Your task to perform on an android device: Search for Mexican restaurants on Maps Image 0: 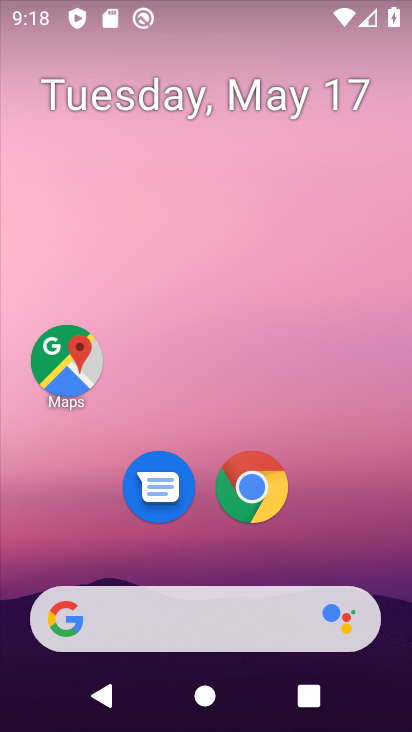
Step 0: drag from (289, 373) to (324, 252)
Your task to perform on an android device: Search for Mexican restaurants on Maps Image 1: 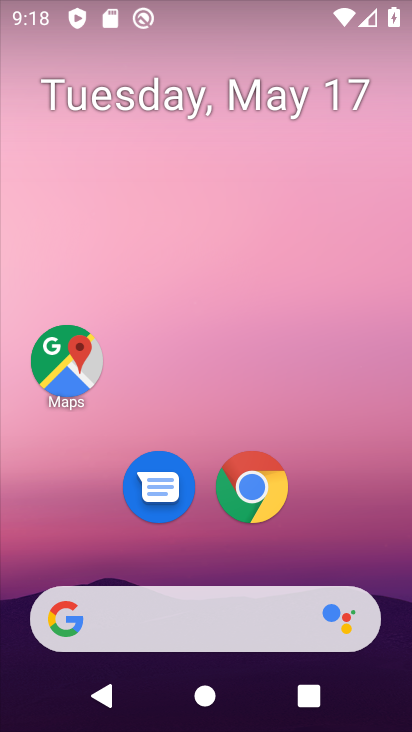
Step 1: drag from (187, 661) to (378, 198)
Your task to perform on an android device: Search for Mexican restaurants on Maps Image 2: 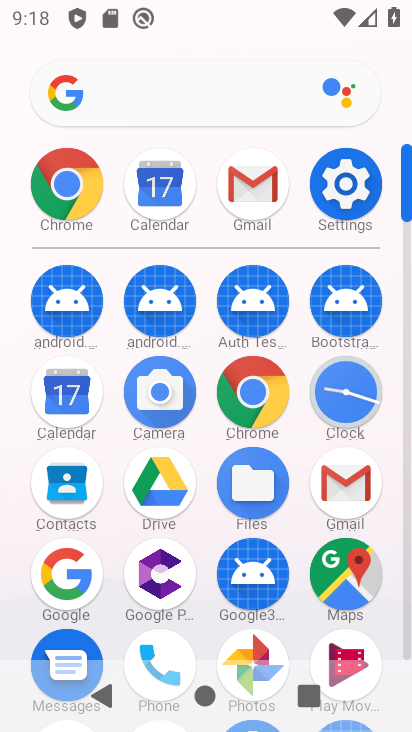
Step 2: click (328, 574)
Your task to perform on an android device: Search for Mexican restaurants on Maps Image 3: 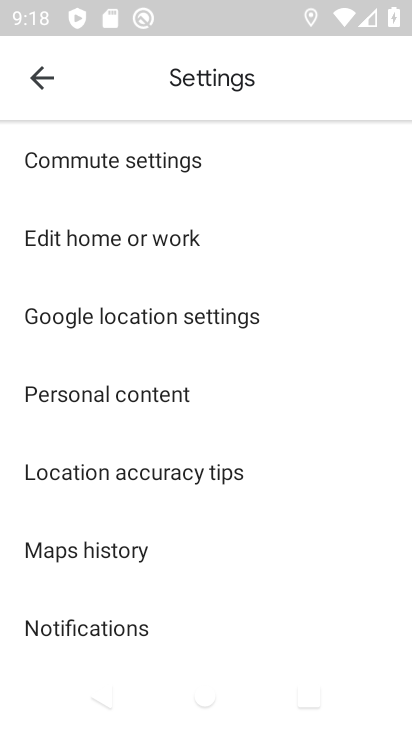
Step 3: click (46, 81)
Your task to perform on an android device: Search for Mexican restaurants on Maps Image 4: 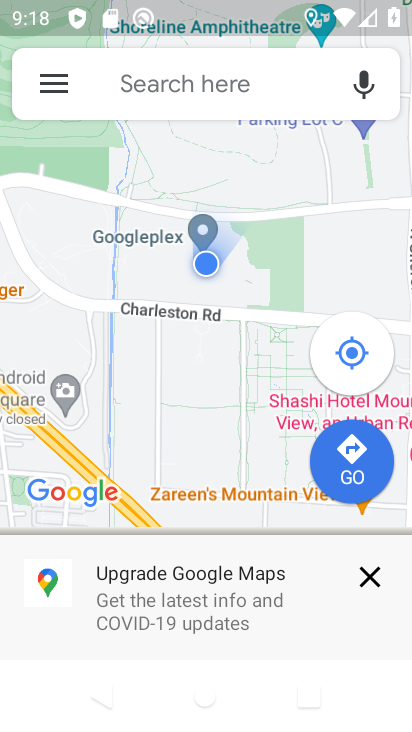
Step 4: click (136, 89)
Your task to perform on an android device: Search for Mexican restaurants on Maps Image 5: 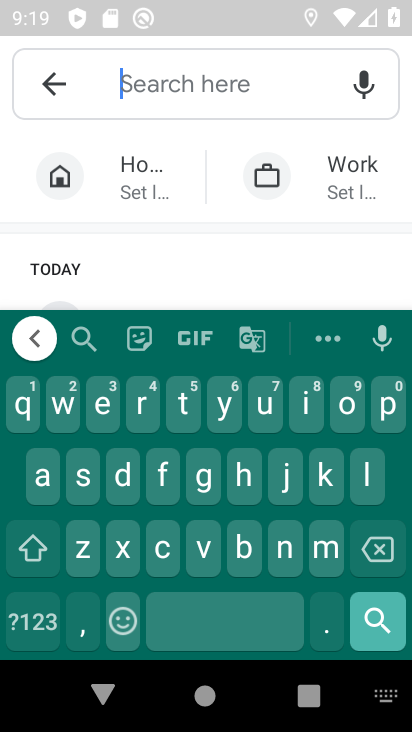
Step 5: click (328, 553)
Your task to perform on an android device: Search for Mexican restaurants on Maps Image 6: 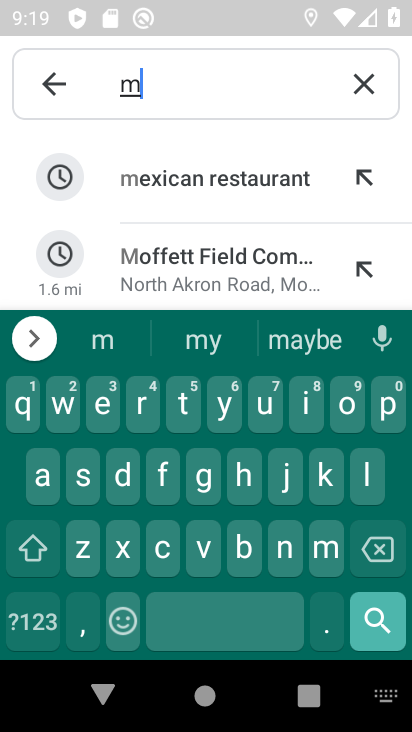
Step 6: click (195, 192)
Your task to perform on an android device: Search for Mexican restaurants on Maps Image 7: 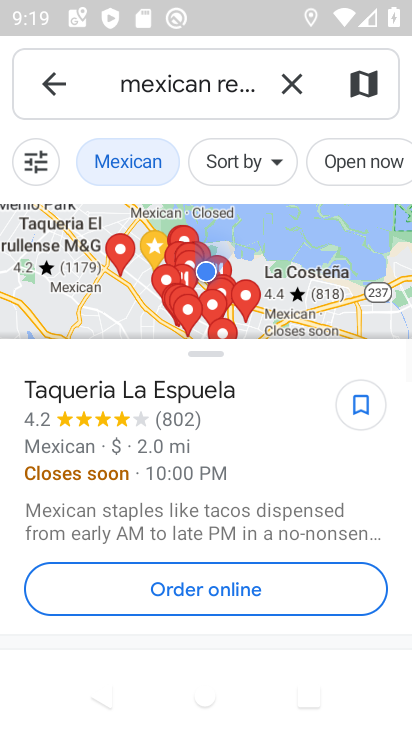
Step 7: click (175, 246)
Your task to perform on an android device: Search for Mexican restaurants on Maps Image 8: 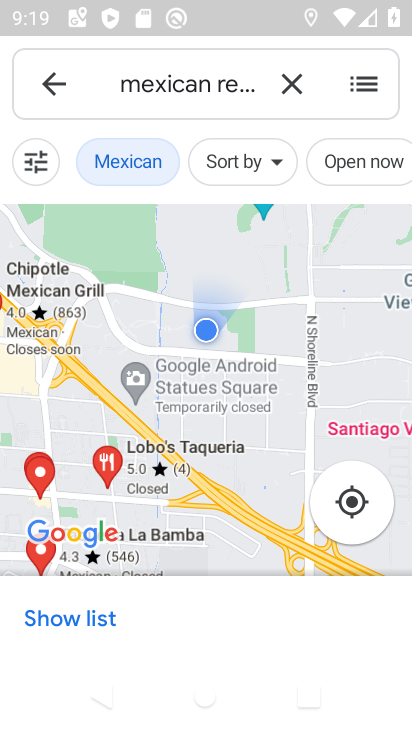
Step 8: task complete